Your task to perform on an android device: change the clock display to analog Image 0: 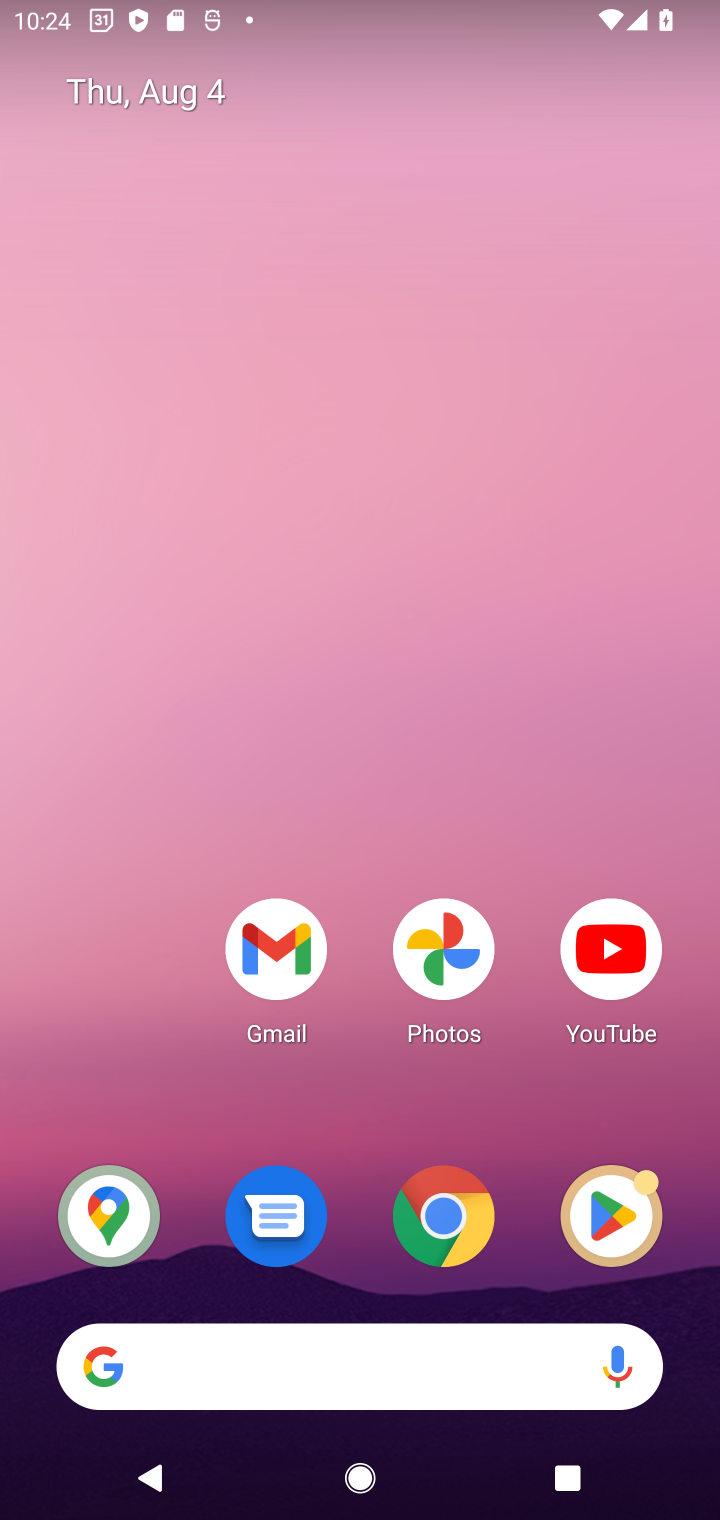
Step 0: drag from (264, 1372) to (439, 215)
Your task to perform on an android device: change the clock display to analog Image 1: 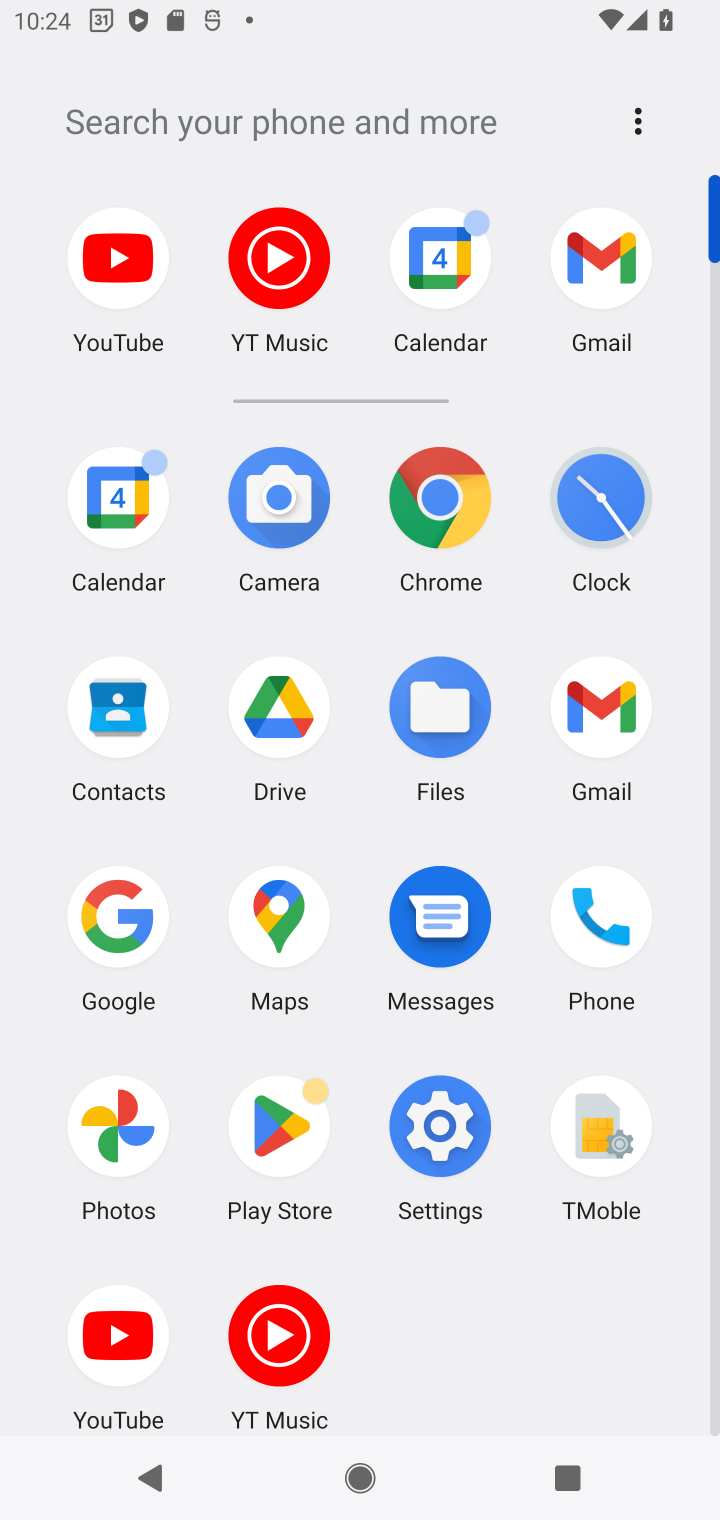
Step 1: click (601, 501)
Your task to perform on an android device: change the clock display to analog Image 2: 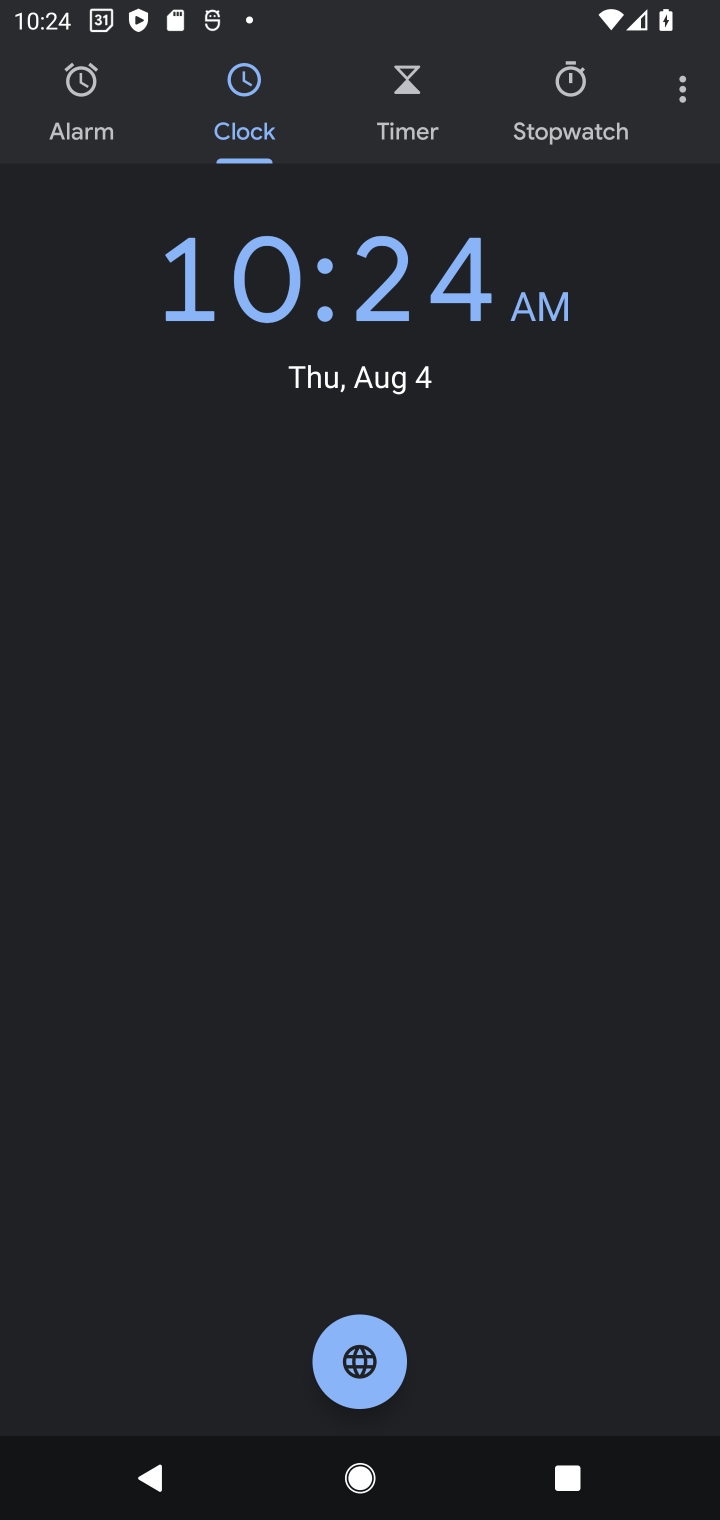
Step 2: click (683, 99)
Your task to perform on an android device: change the clock display to analog Image 3: 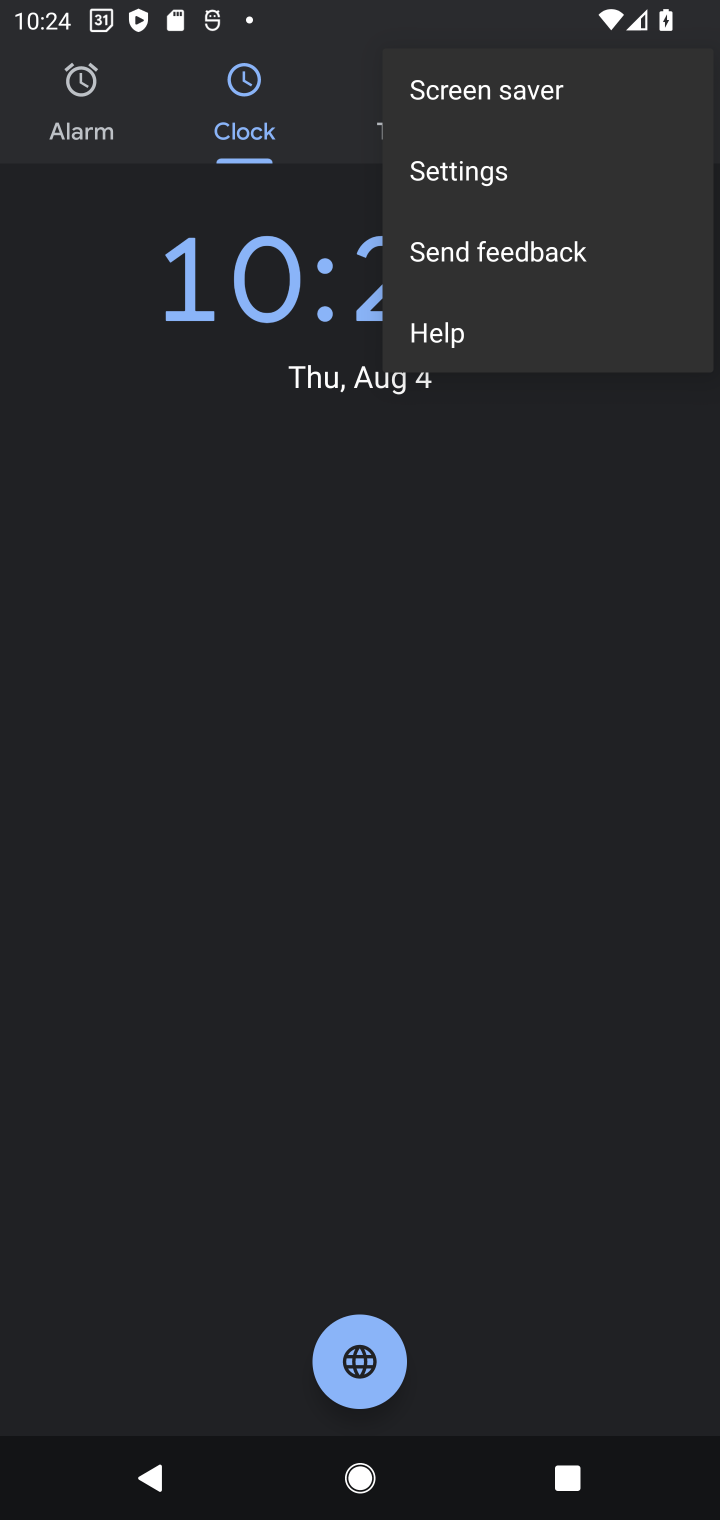
Step 3: click (505, 178)
Your task to perform on an android device: change the clock display to analog Image 4: 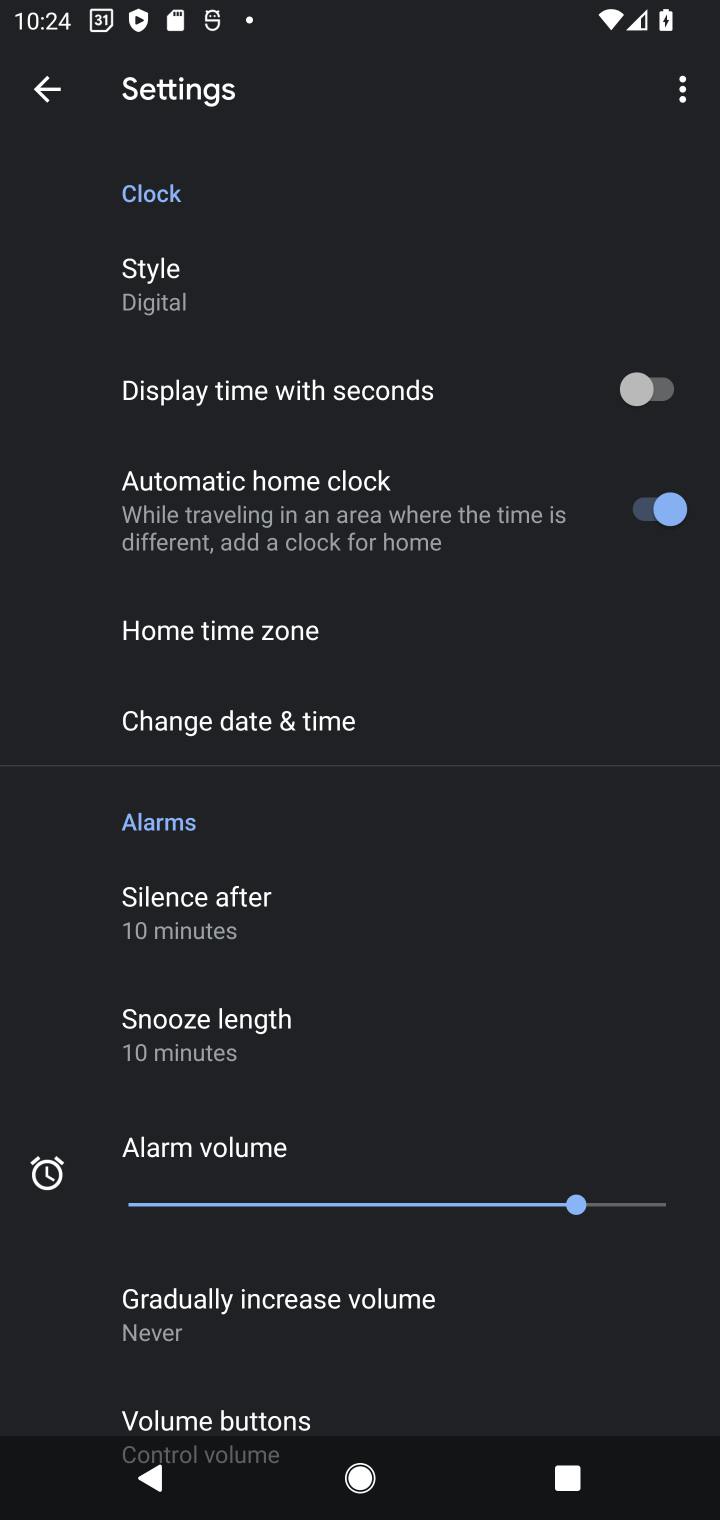
Step 4: click (168, 310)
Your task to perform on an android device: change the clock display to analog Image 5: 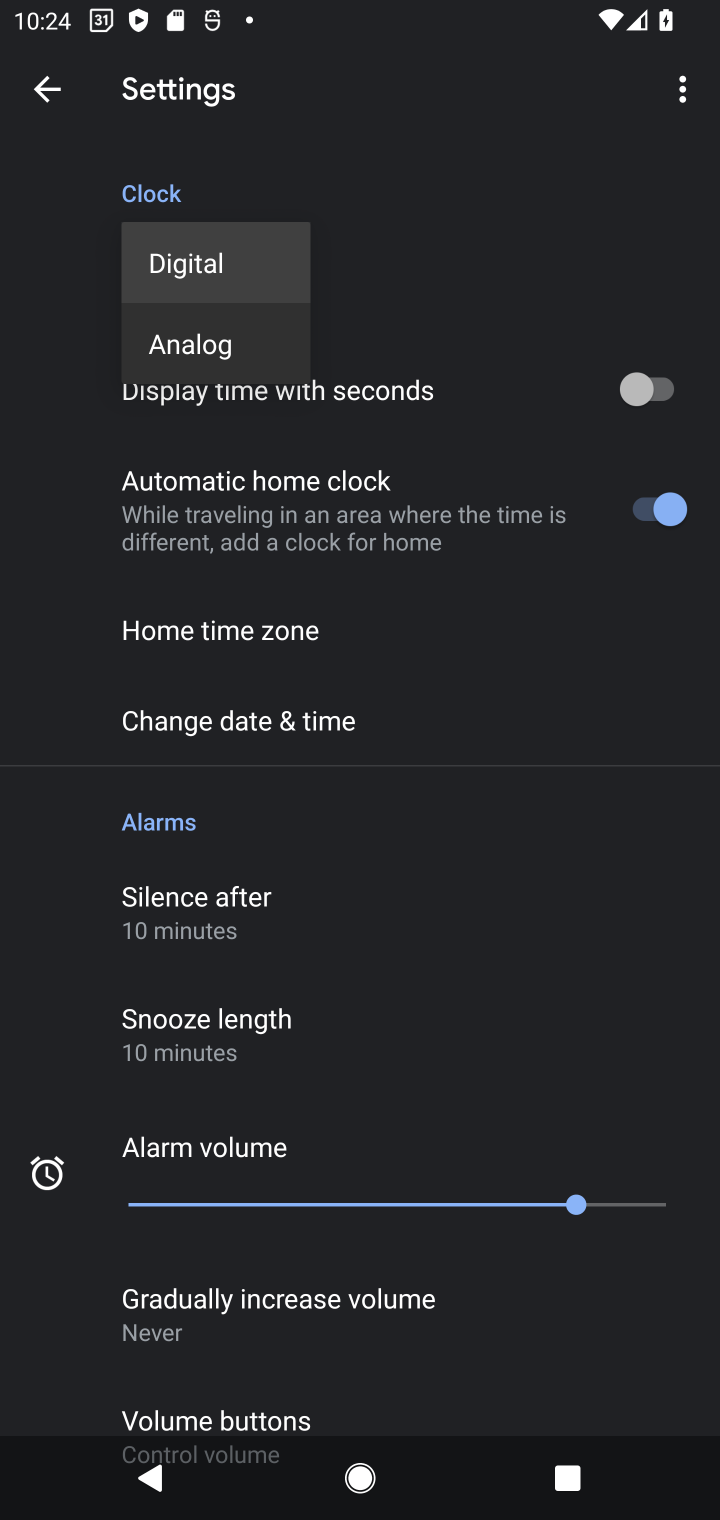
Step 5: click (222, 343)
Your task to perform on an android device: change the clock display to analog Image 6: 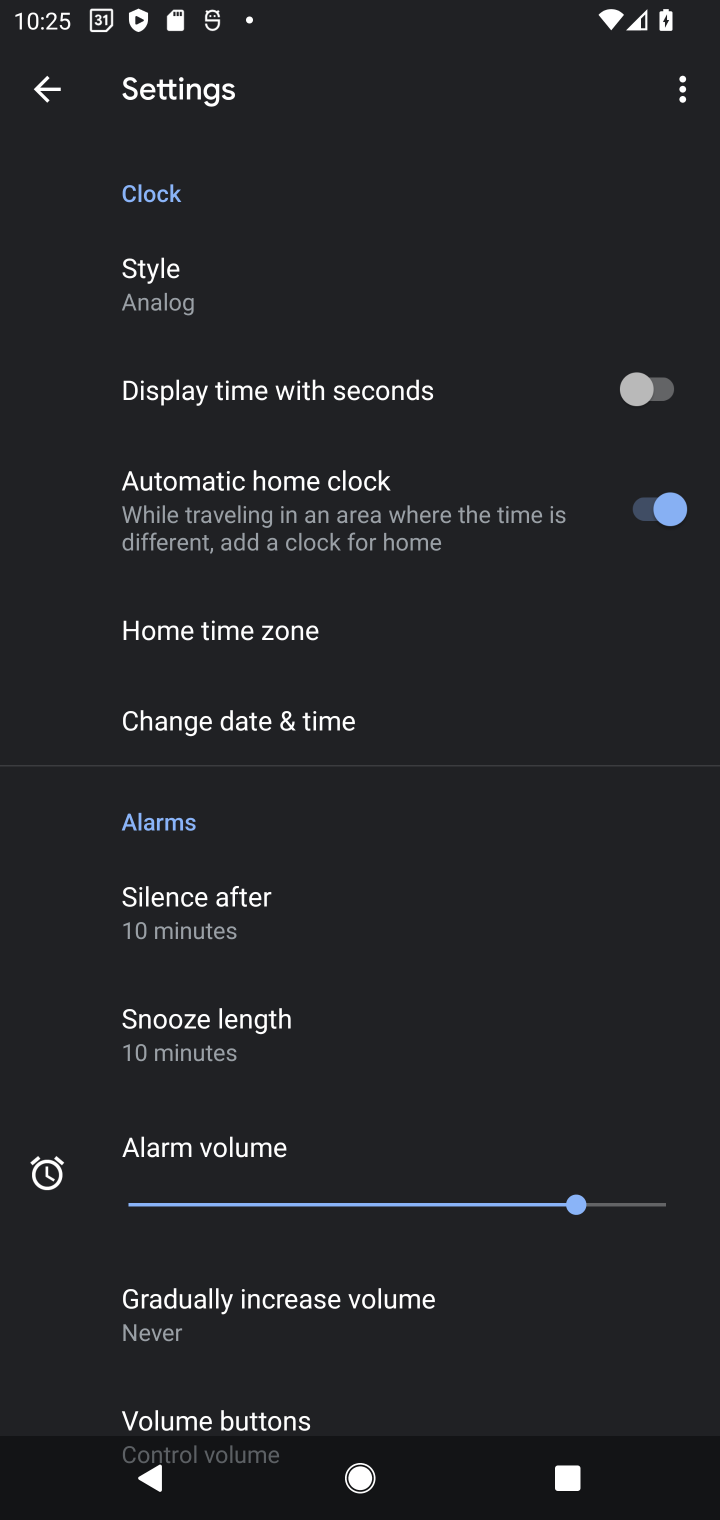
Step 6: task complete